Your task to perform on an android device: move an email to a new category in the gmail app Image 0: 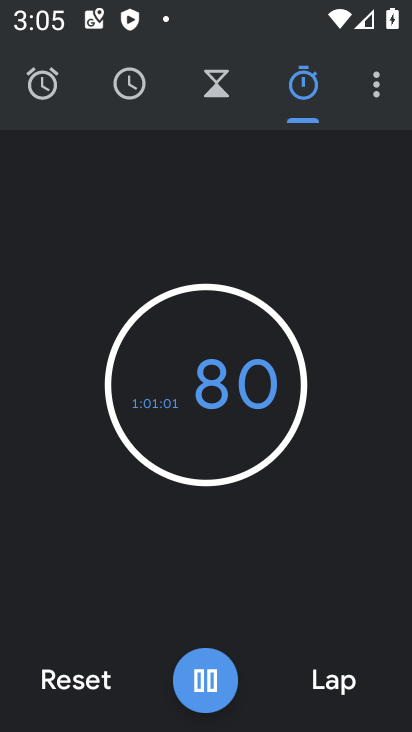
Step 0: press home button
Your task to perform on an android device: move an email to a new category in the gmail app Image 1: 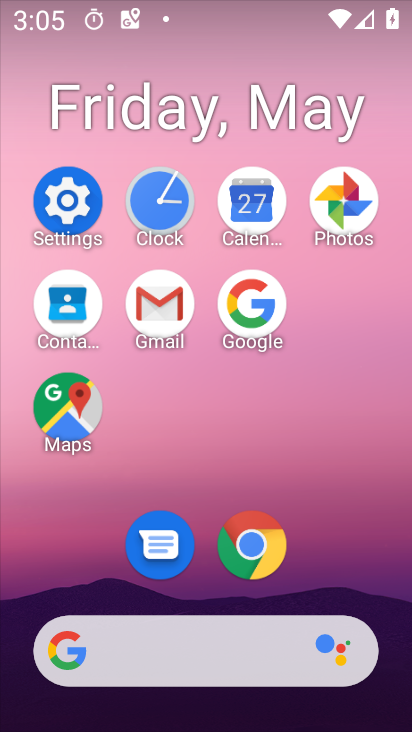
Step 1: click (170, 305)
Your task to perform on an android device: move an email to a new category in the gmail app Image 2: 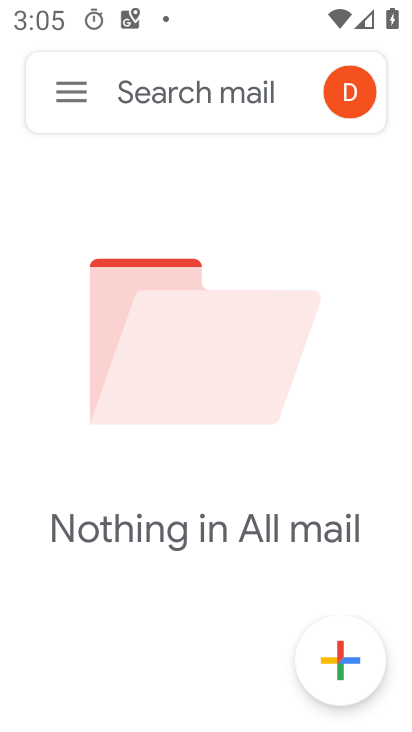
Step 2: task complete